Your task to perform on an android device: What is the news today? Image 0: 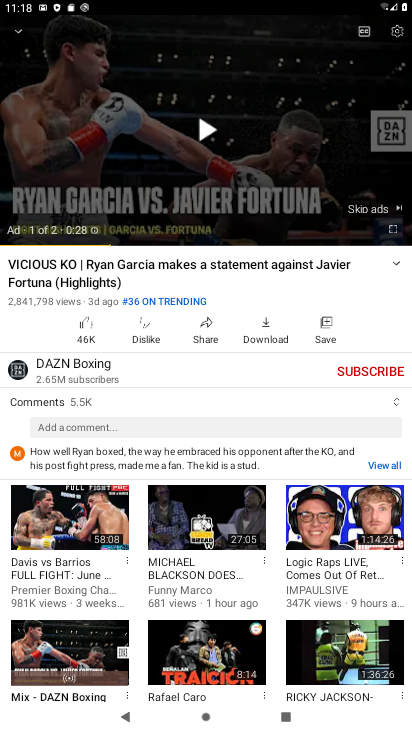
Step 0: press home button
Your task to perform on an android device: What is the news today? Image 1: 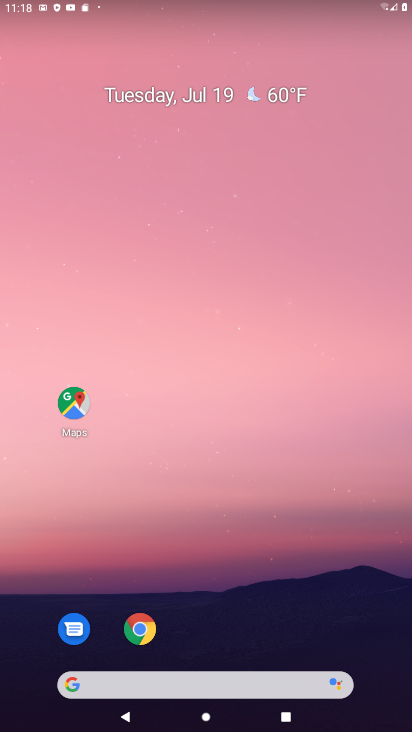
Step 1: click (237, 688)
Your task to perform on an android device: What is the news today? Image 2: 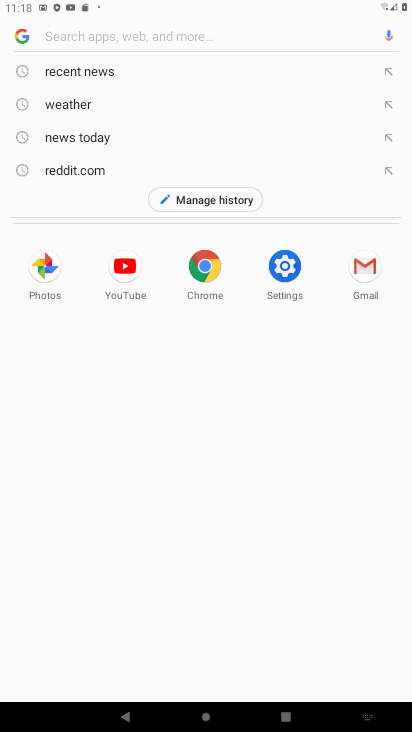
Step 2: type "what is the news today"
Your task to perform on an android device: What is the news today? Image 3: 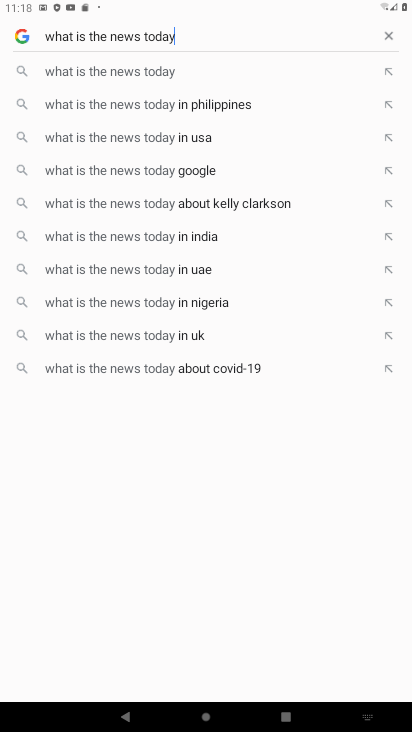
Step 3: click (140, 74)
Your task to perform on an android device: What is the news today? Image 4: 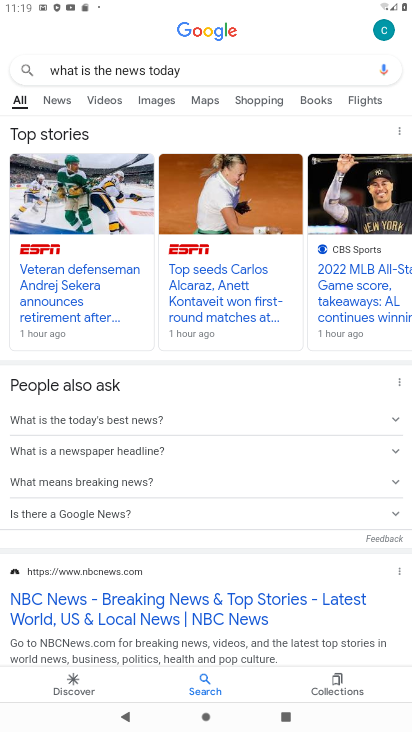
Step 4: click (55, 105)
Your task to perform on an android device: What is the news today? Image 5: 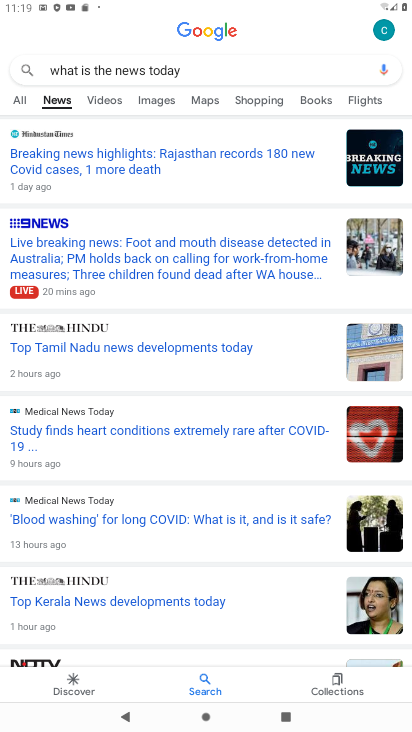
Step 5: task complete